Your task to perform on an android device: clear history in the chrome app Image 0: 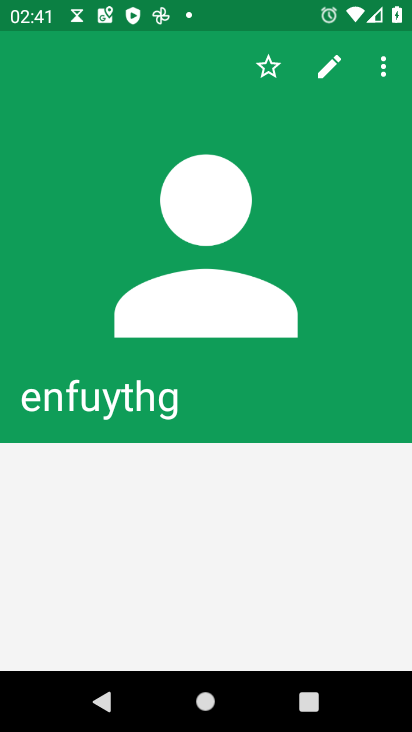
Step 0: press home button
Your task to perform on an android device: clear history in the chrome app Image 1: 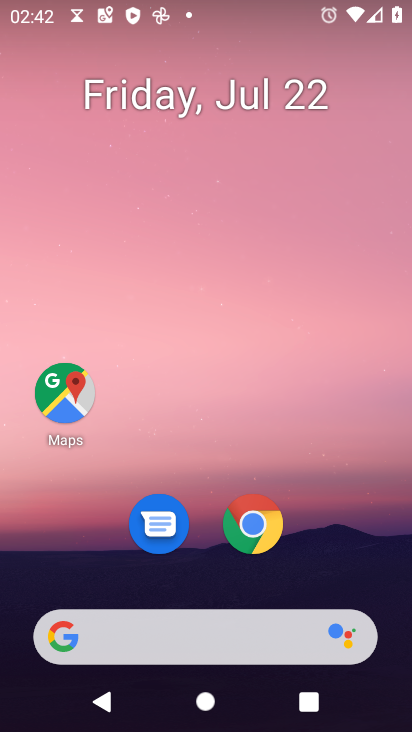
Step 1: click (243, 524)
Your task to perform on an android device: clear history in the chrome app Image 2: 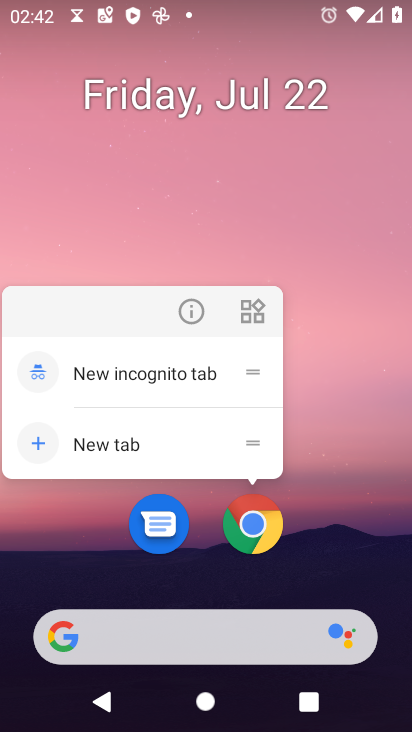
Step 2: click (252, 524)
Your task to perform on an android device: clear history in the chrome app Image 3: 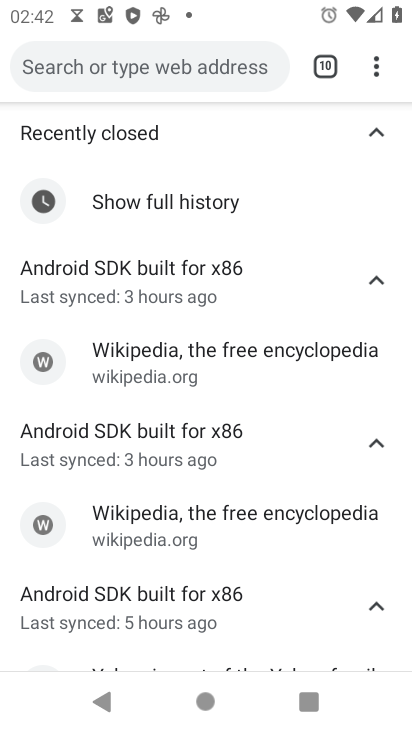
Step 3: drag from (378, 68) to (172, 383)
Your task to perform on an android device: clear history in the chrome app Image 4: 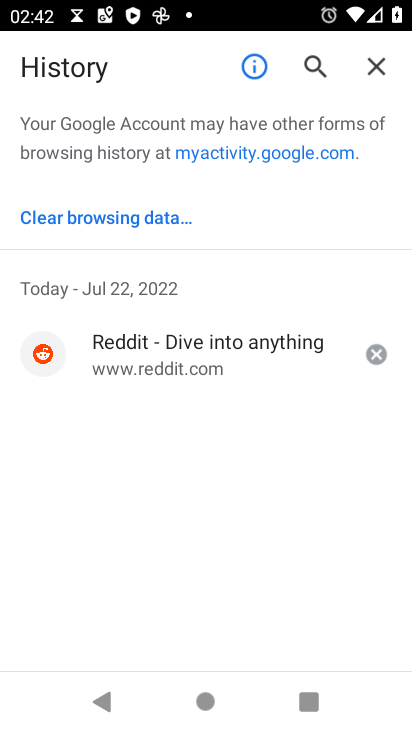
Step 4: click (106, 211)
Your task to perform on an android device: clear history in the chrome app Image 5: 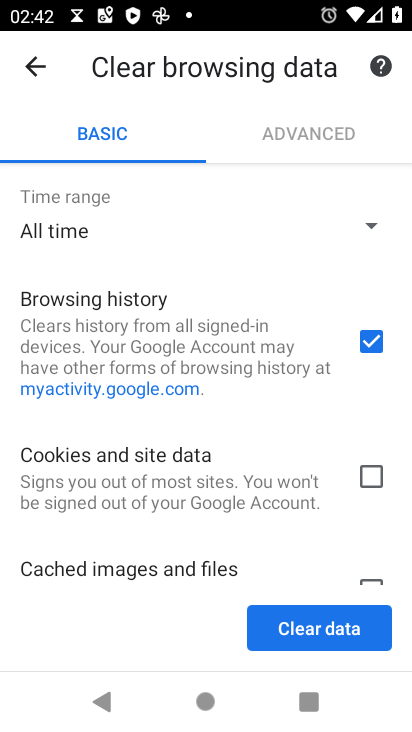
Step 5: click (371, 475)
Your task to perform on an android device: clear history in the chrome app Image 6: 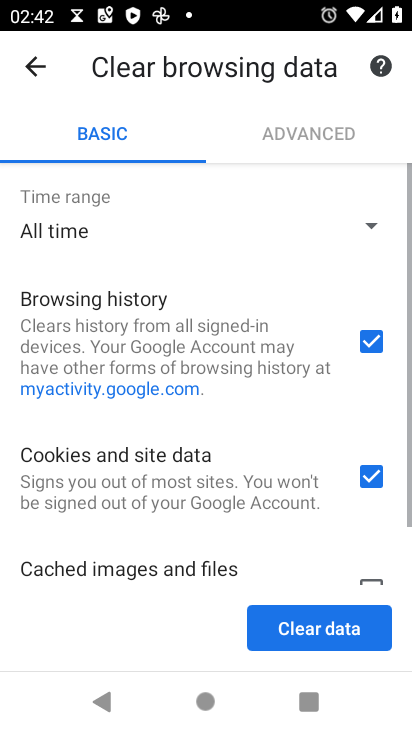
Step 6: click (371, 582)
Your task to perform on an android device: clear history in the chrome app Image 7: 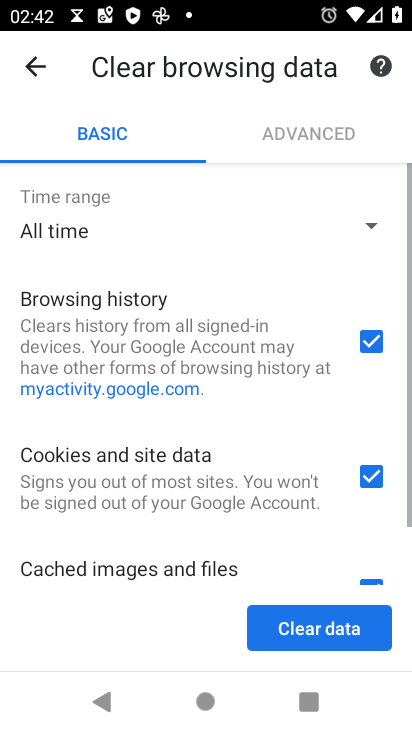
Step 7: click (319, 627)
Your task to perform on an android device: clear history in the chrome app Image 8: 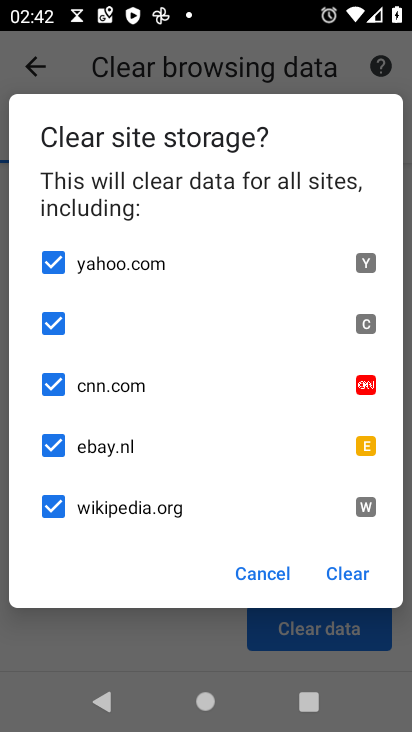
Step 8: click (355, 578)
Your task to perform on an android device: clear history in the chrome app Image 9: 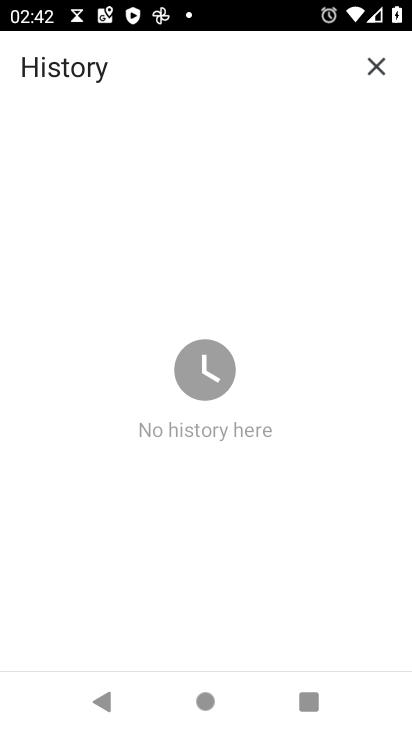
Step 9: task complete